Your task to perform on an android device: toggle airplane mode Image 0: 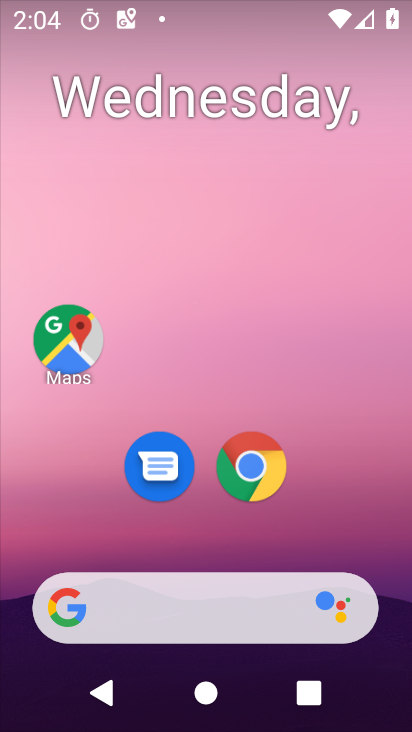
Step 0: drag from (321, 485) to (326, 40)
Your task to perform on an android device: toggle airplane mode Image 1: 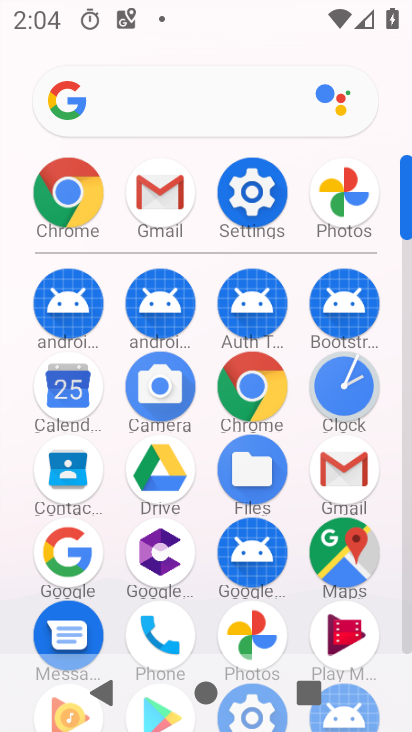
Step 1: click (254, 198)
Your task to perform on an android device: toggle airplane mode Image 2: 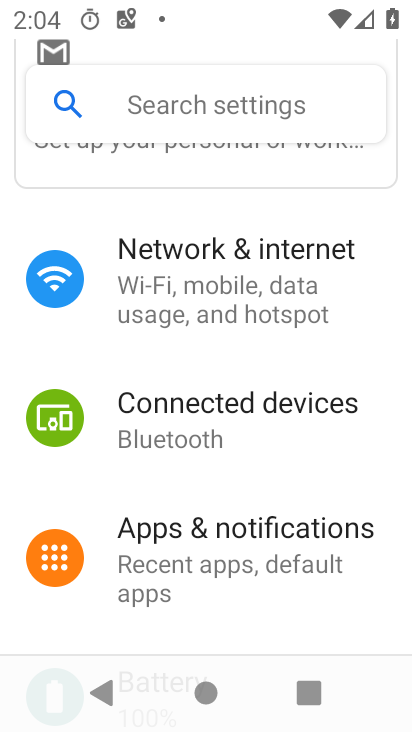
Step 2: click (250, 252)
Your task to perform on an android device: toggle airplane mode Image 3: 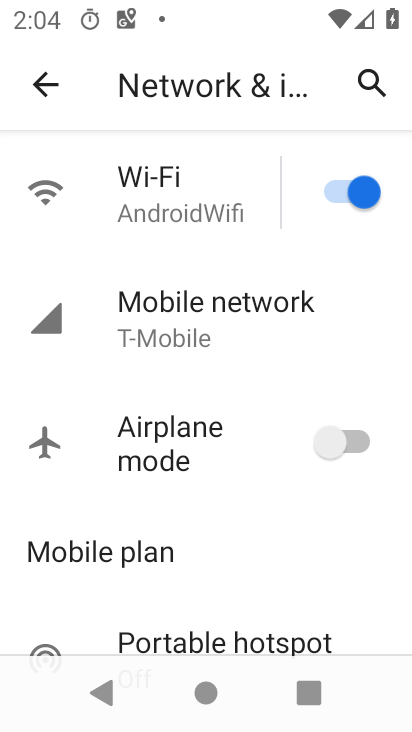
Step 3: click (356, 435)
Your task to perform on an android device: toggle airplane mode Image 4: 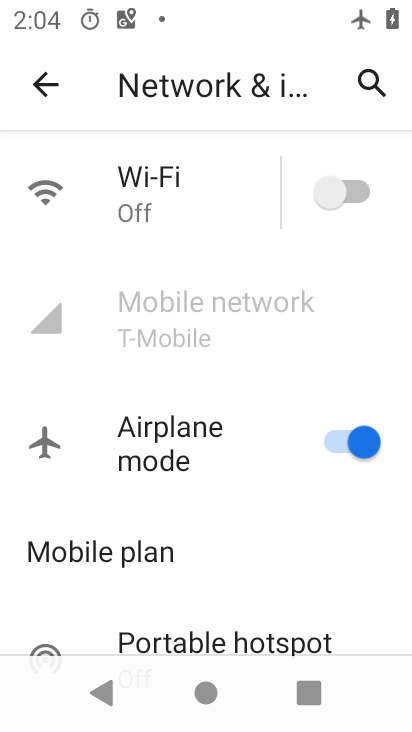
Step 4: task complete